Your task to perform on an android device: Open the stopwatch Image 0: 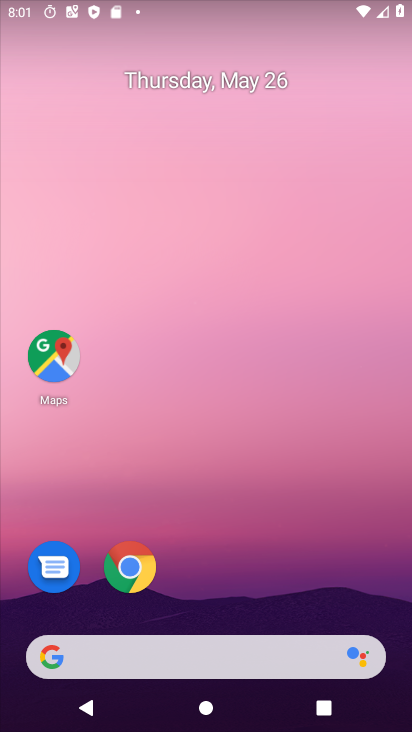
Step 0: press home button
Your task to perform on an android device: Open the stopwatch Image 1: 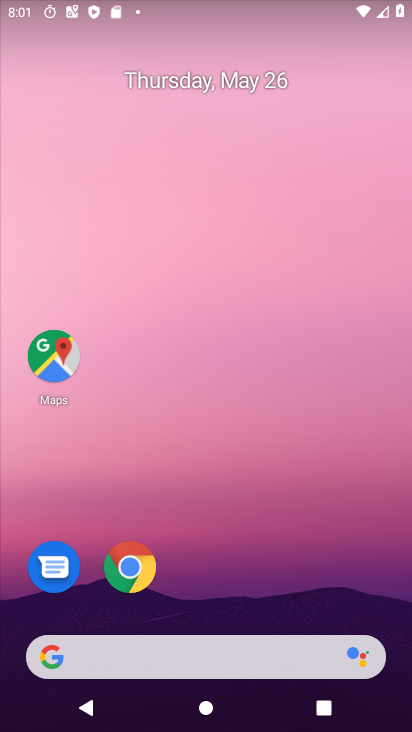
Step 1: drag from (173, 645) to (346, 175)
Your task to perform on an android device: Open the stopwatch Image 2: 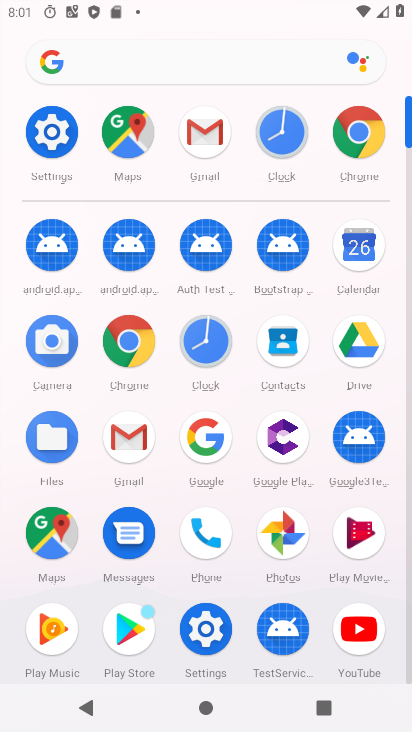
Step 2: click (286, 133)
Your task to perform on an android device: Open the stopwatch Image 3: 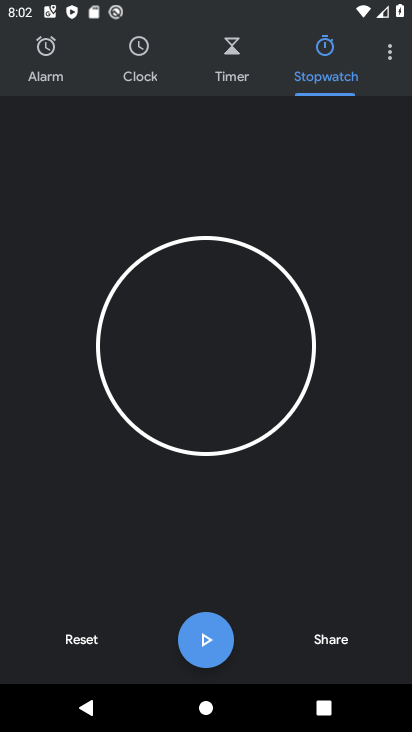
Step 3: task complete